Your task to perform on an android device: change the clock display to digital Image 0: 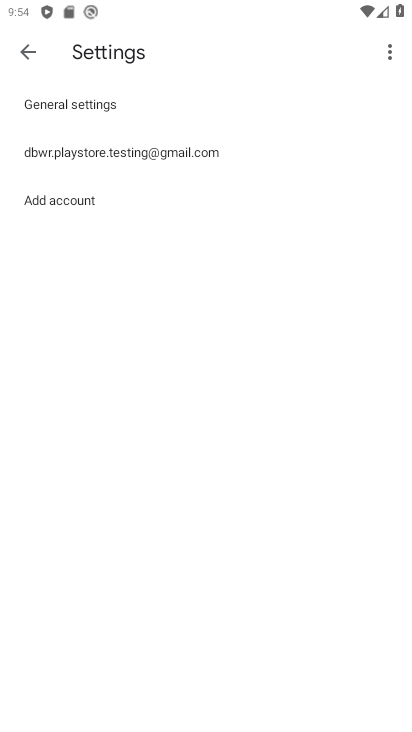
Step 0: press home button
Your task to perform on an android device: change the clock display to digital Image 1: 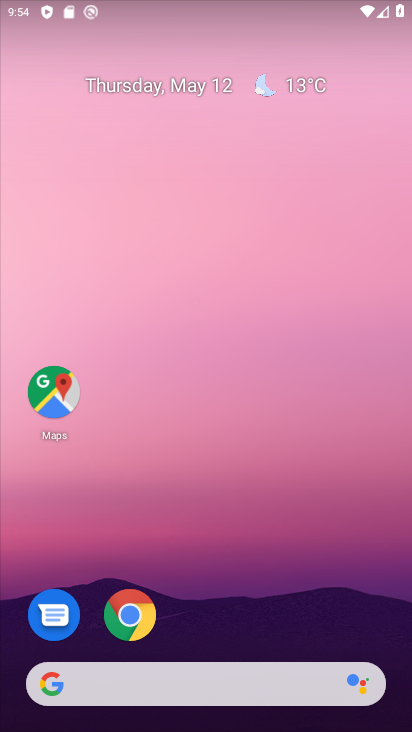
Step 1: drag from (375, 547) to (319, 15)
Your task to perform on an android device: change the clock display to digital Image 2: 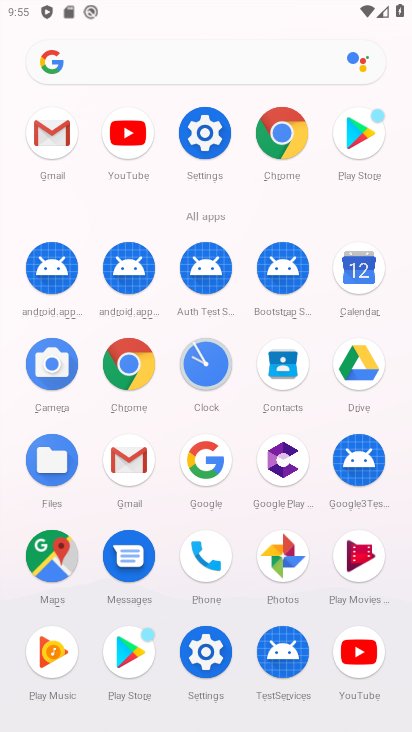
Step 2: click (202, 376)
Your task to perform on an android device: change the clock display to digital Image 3: 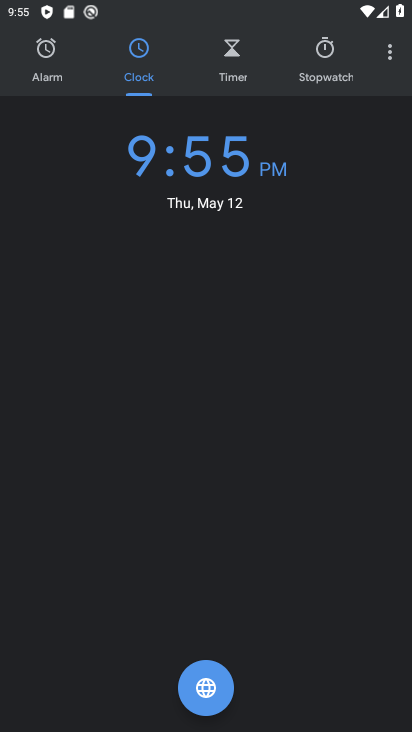
Step 3: click (390, 62)
Your task to perform on an android device: change the clock display to digital Image 4: 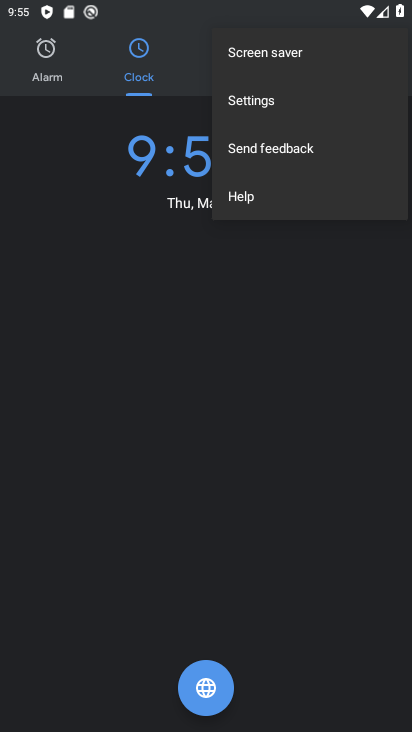
Step 4: click (248, 103)
Your task to perform on an android device: change the clock display to digital Image 5: 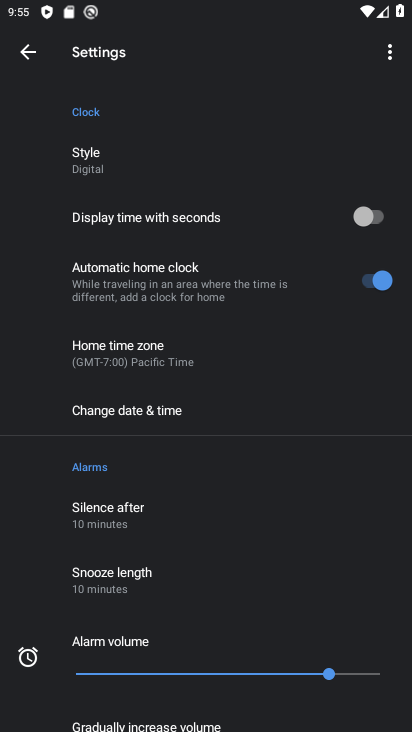
Step 5: click (128, 168)
Your task to perform on an android device: change the clock display to digital Image 6: 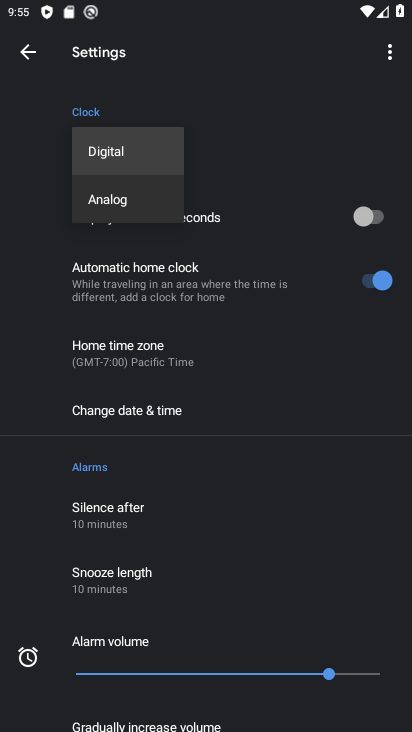
Step 6: task complete